Your task to perform on an android device: change notifications settings Image 0: 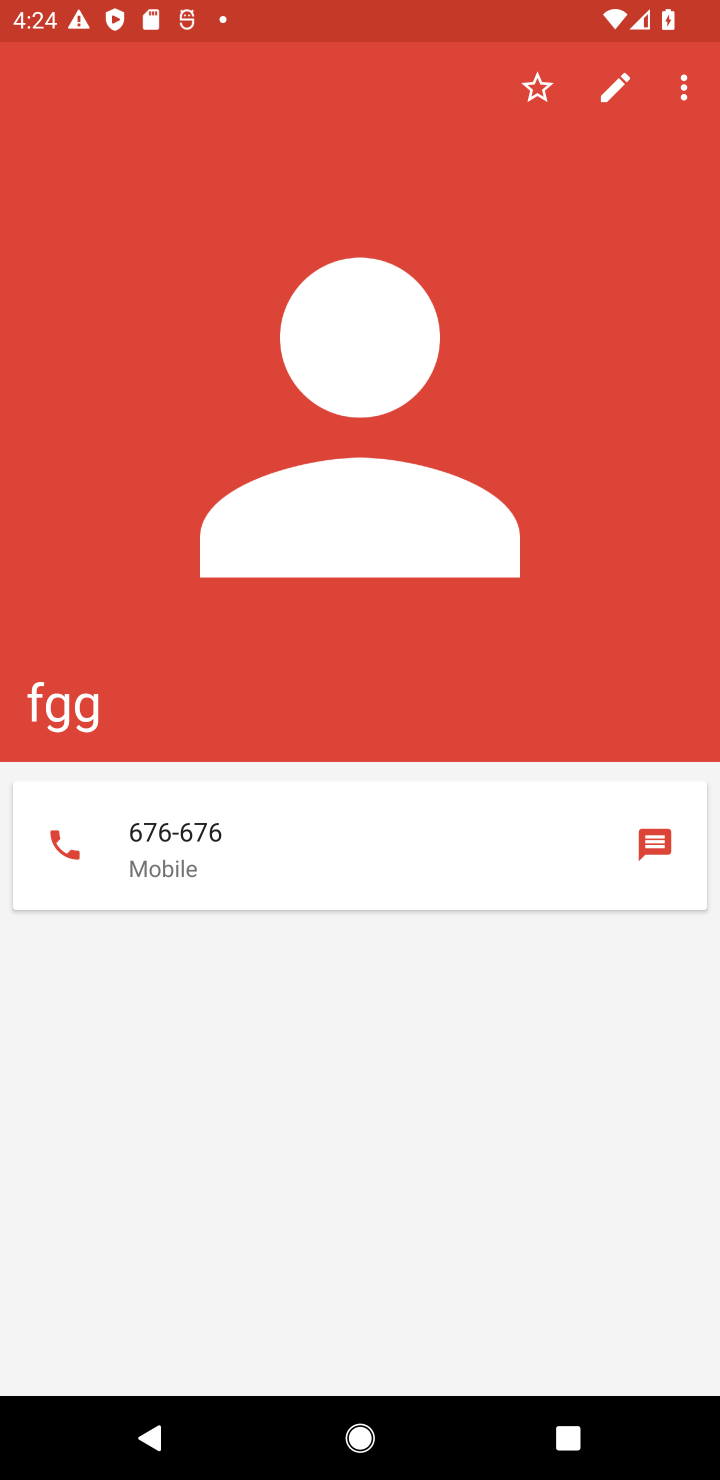
Step 0: press back button
Your task to perform on an android device: change notifications settings Image 1: 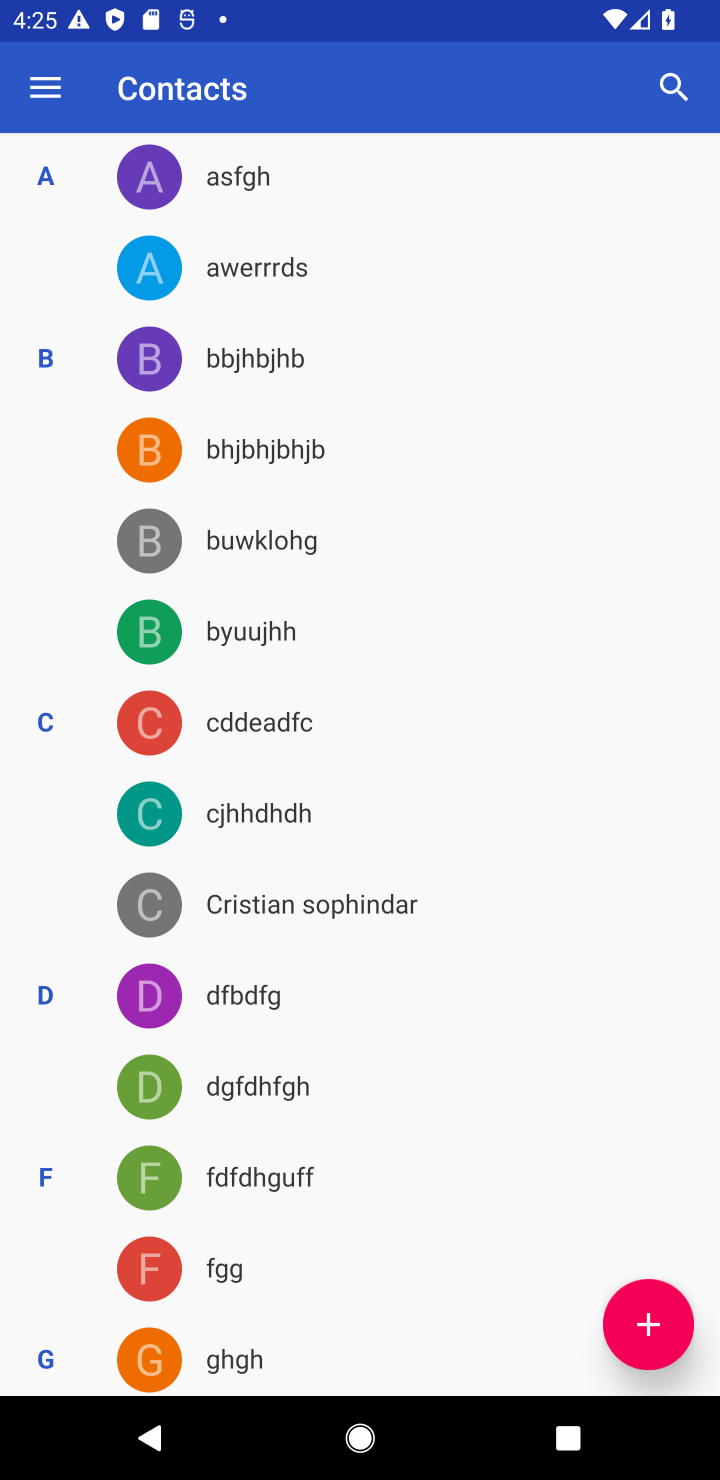
Step 1: press back button
Your task to perform on an android device: change notifications settings Image 2: 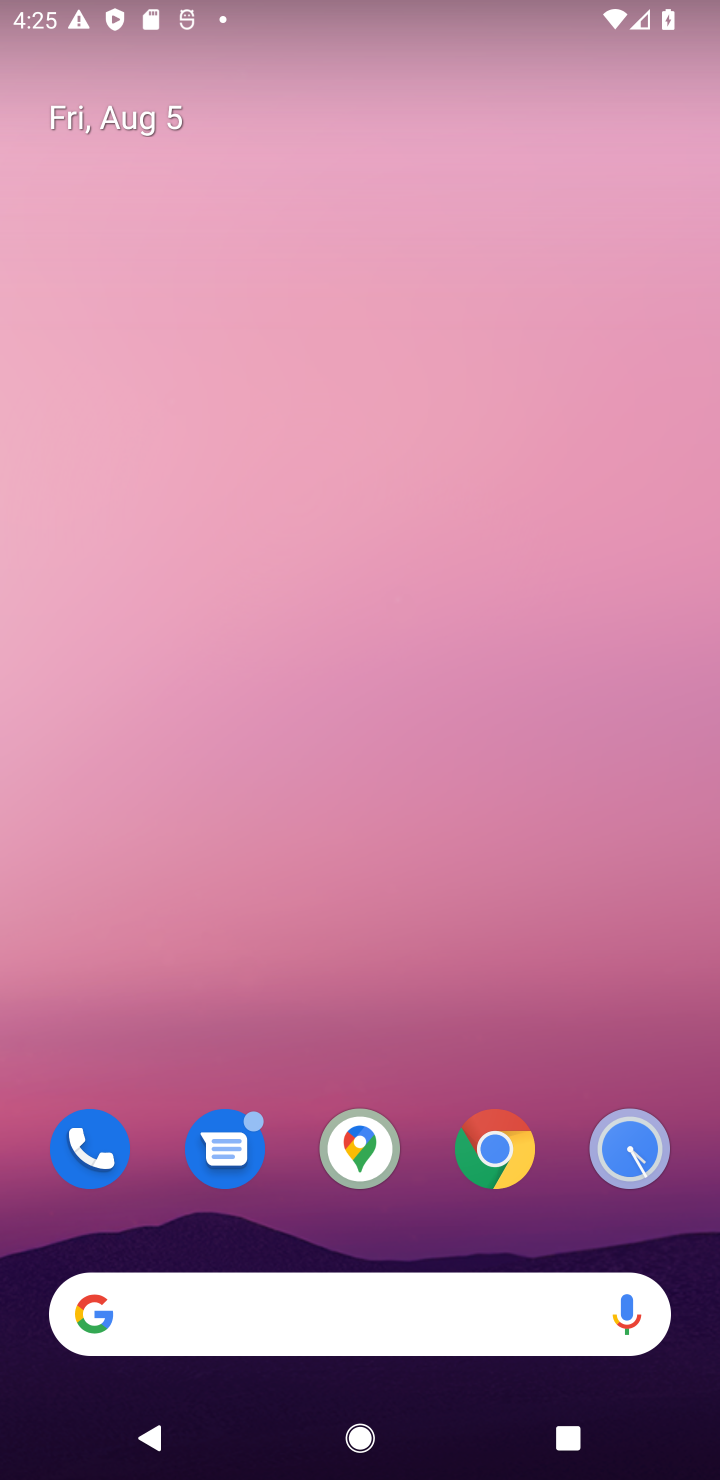
Step 2: drag from (428, 708) to (524, 213)
Your task to perform on an android device: change notifications settings Image 3: 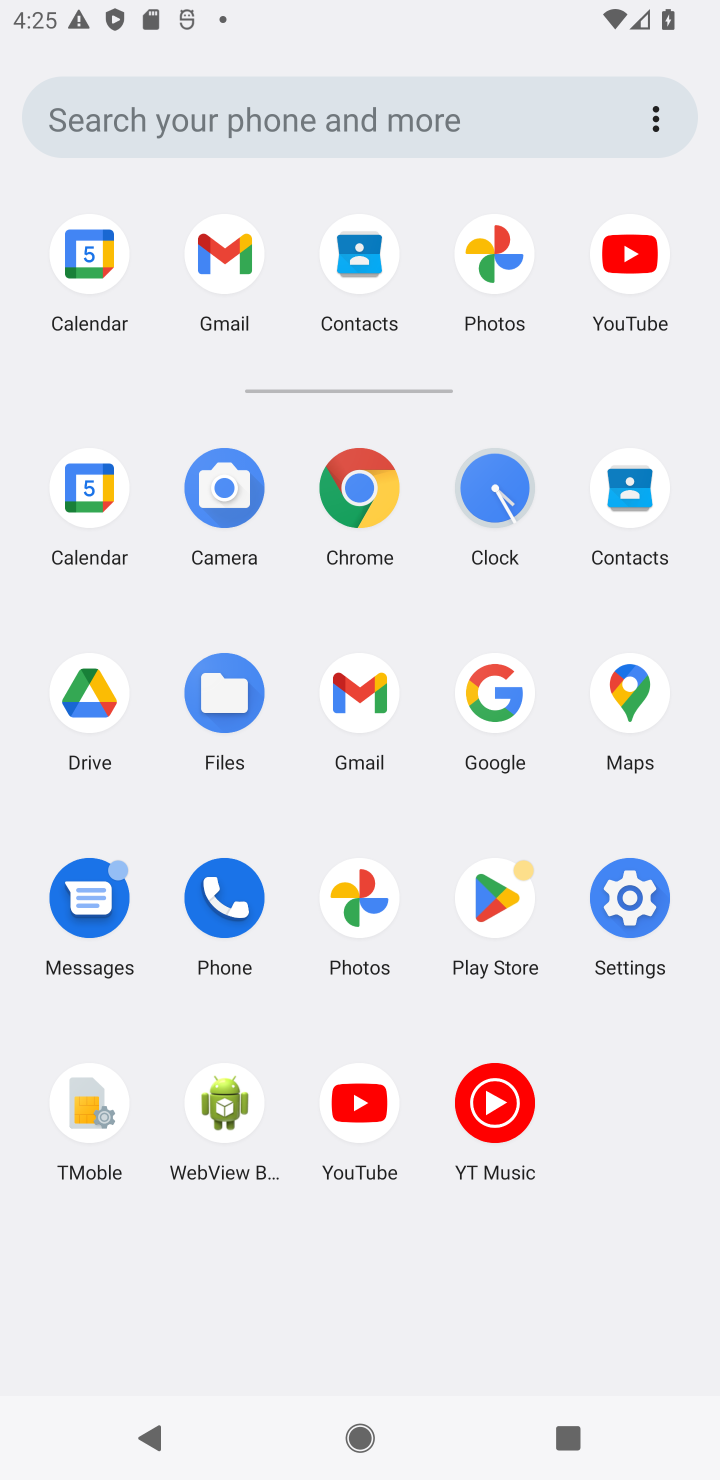
Step 3: click (651, 914)
Your task to perform on an android device: change notifications settings Image 4: 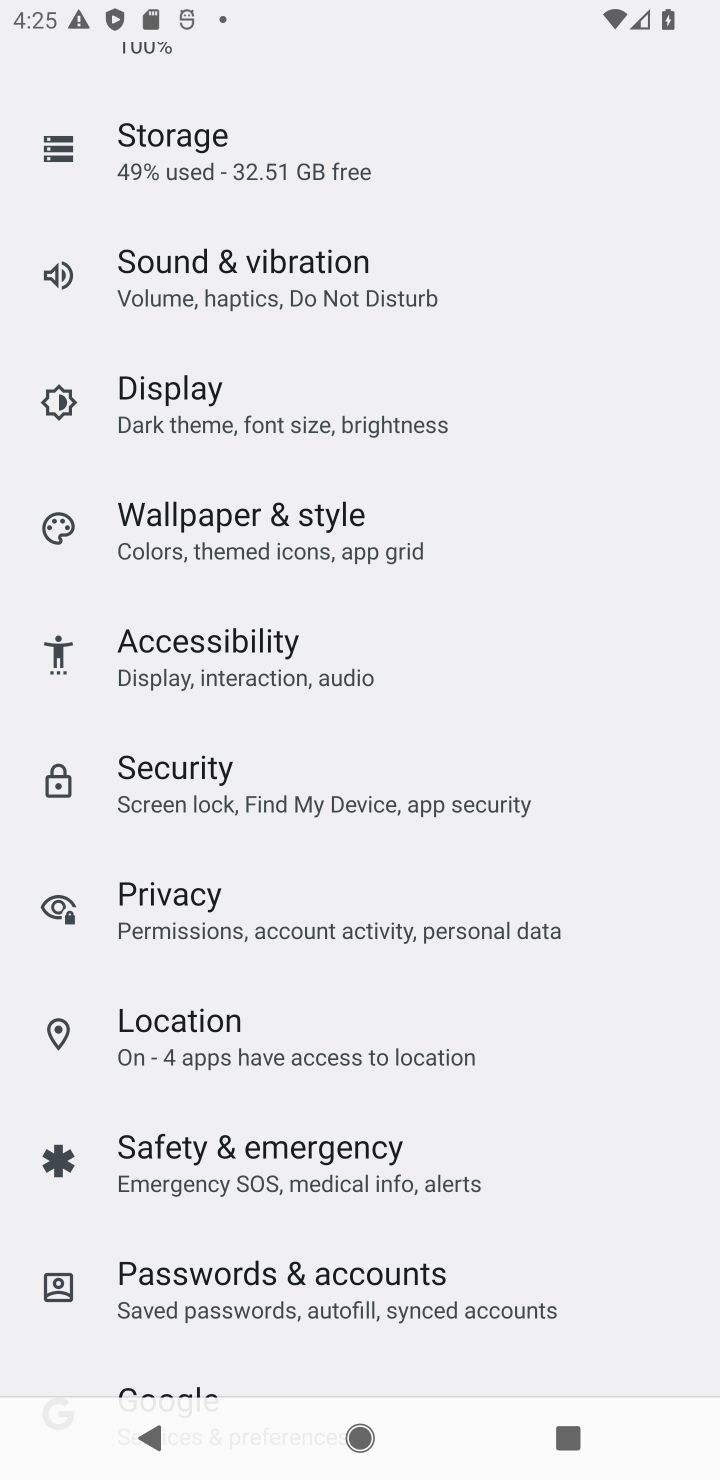
Step 4: drag from (406, 305) to (302, 1424)
Your task to perform on an android device: change notifications settings Image 5: 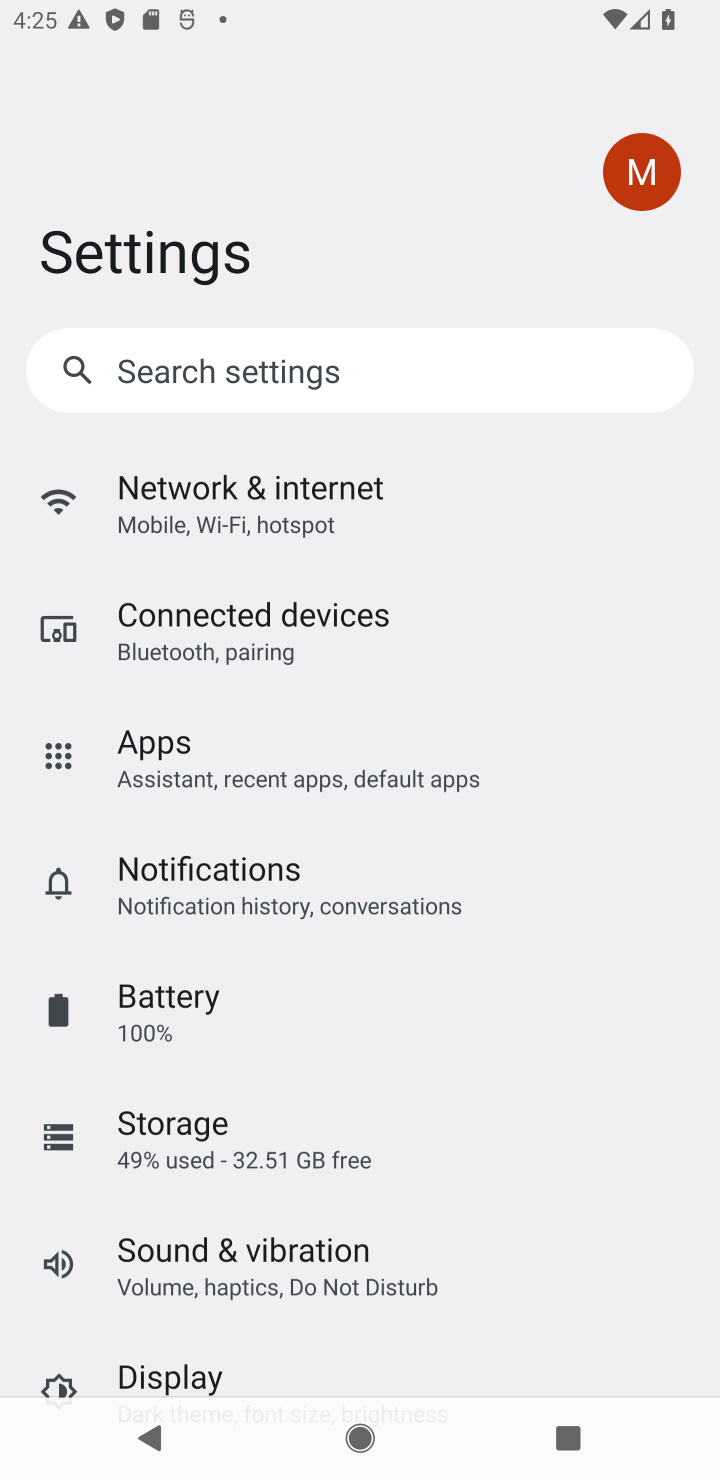
Step 5: click (336, 893)
Your task to perform on an android device: change notifications settings Image 6: 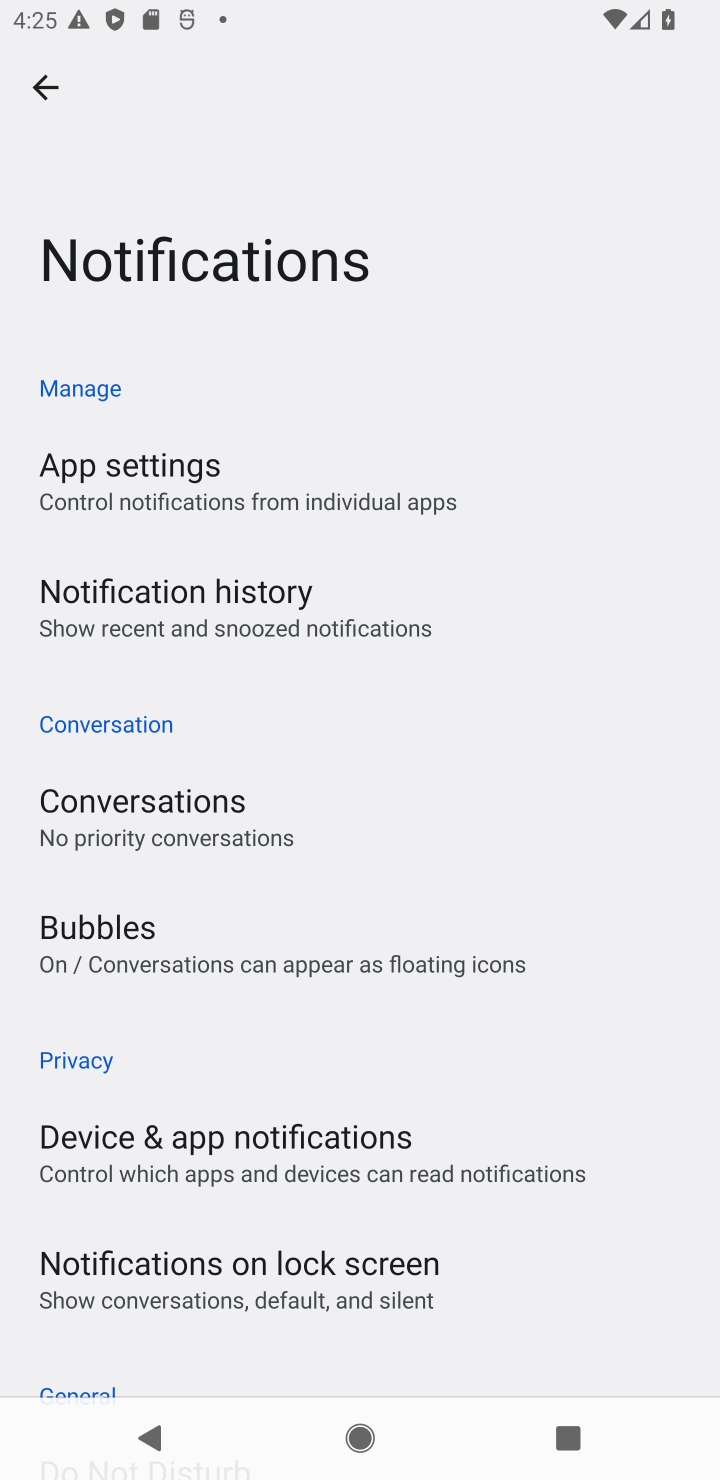
Step 6: drag from (324, 1154) to (449, 154)
Your task to perform on an android device: change notifications settings Image 7: 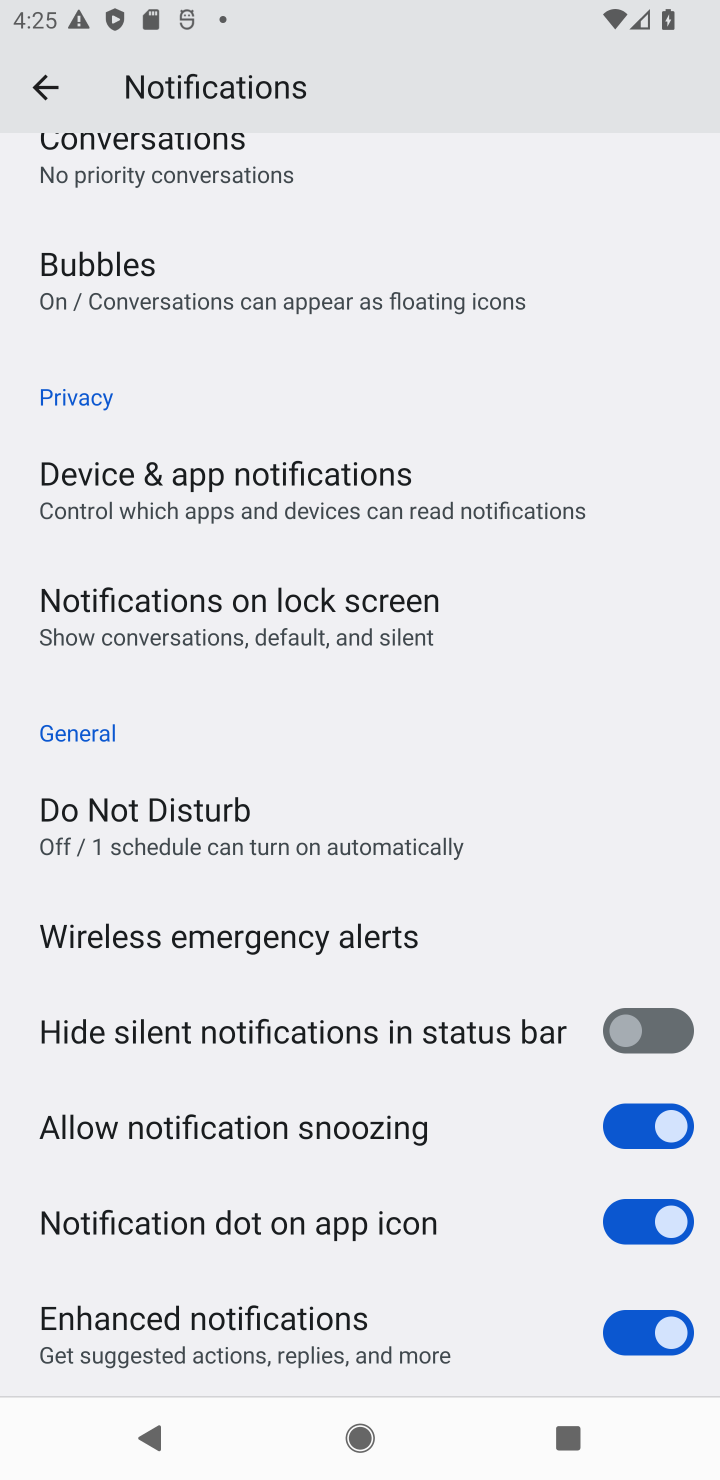
Step 7: click (639, 1123)
Your task to perform on an android device: change notifications settings Image 8: 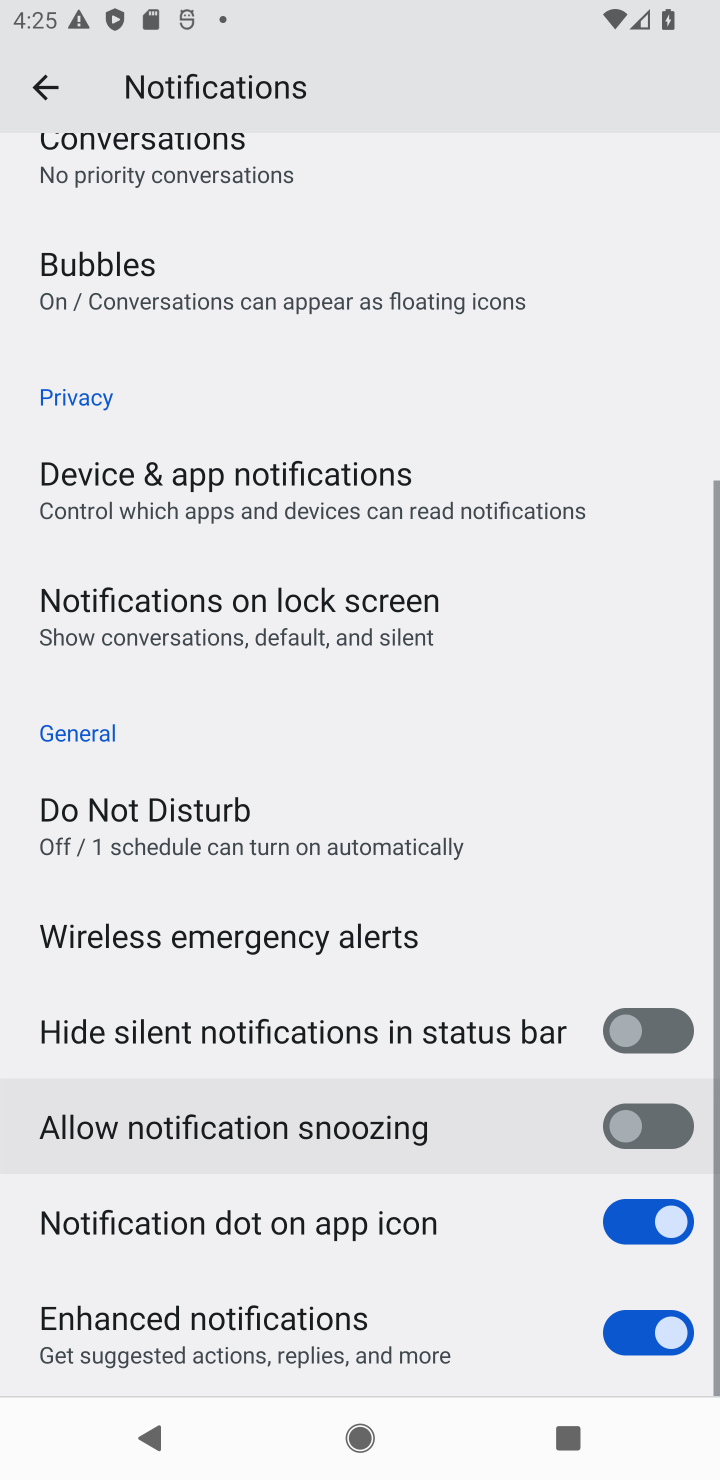
Step 8: task complete